Your task to perform on an android device: star an email in the gmail app Image 0: 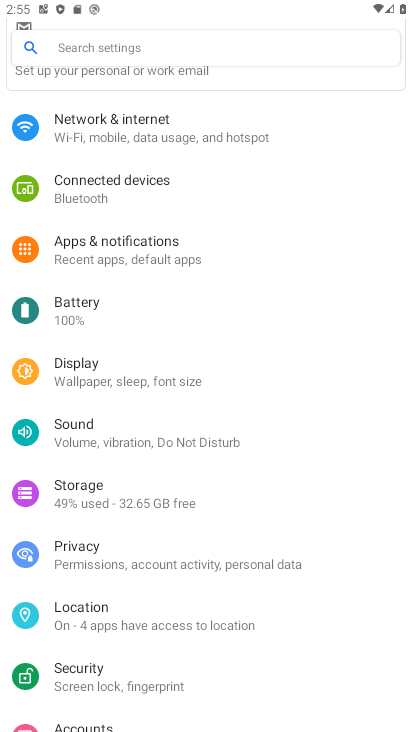
Step 0: press home button
Your task to perform on an android device: star an email in the gmail app Image 1: 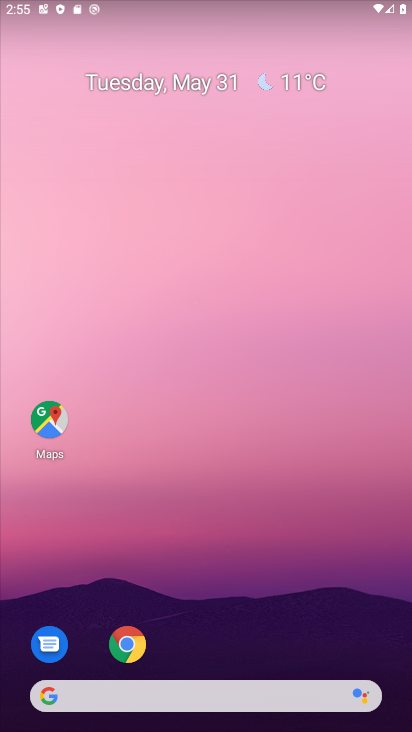
Step 1: drag from (211, 663) to (288, 306)
Your task to perform on an android device: star an email in the gmail app Image 2: 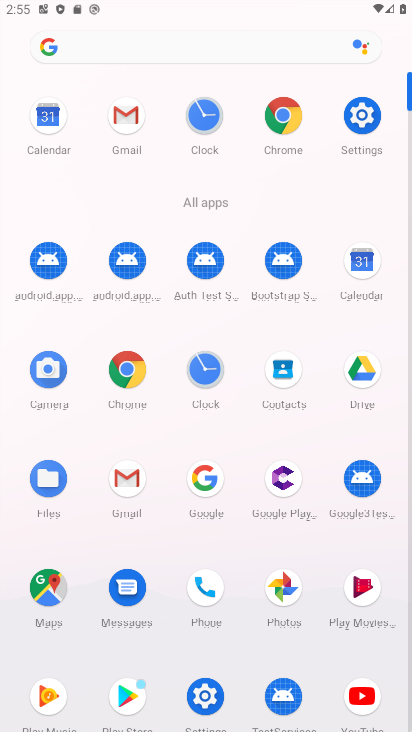
Step 2: click (134, 114)
Your task to perform on an android device: star an email in the gmail app Image 3: 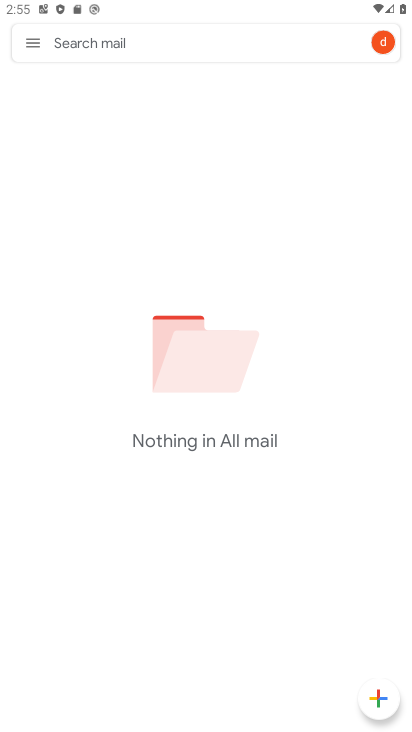
Step 3: click (17, 25)
Your task to perform on an android device: star an email in the gmail app Image 4: 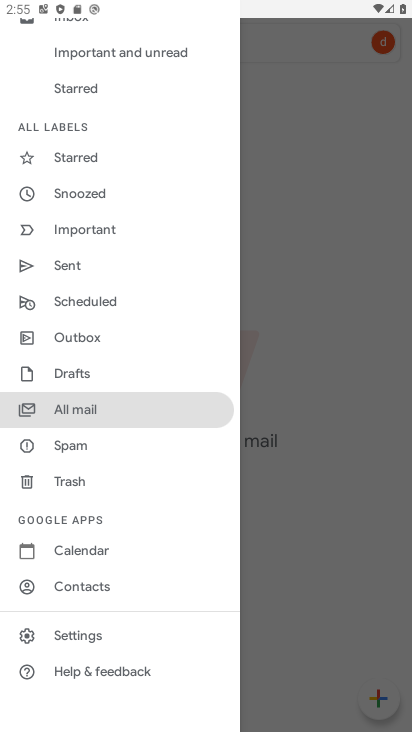
Step 4: click (98, 146)
Your task to perform on an android device: star an email in the gmail app Image 5: 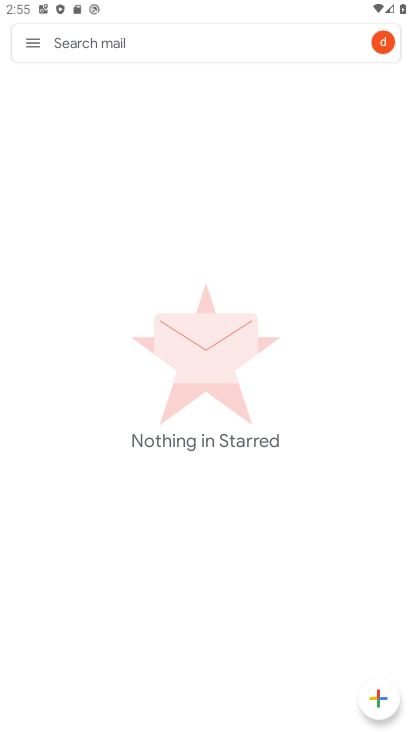
Step 5: task complete